Your task to perform on an android device: toggle javascript in the chrome app Image 0: 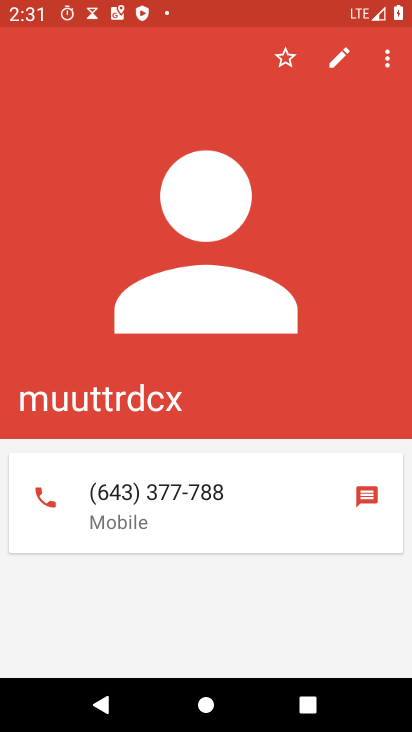
Step 0: press home button
Your task to perform on an android device: toggle javascript in the chrome app Image 1: 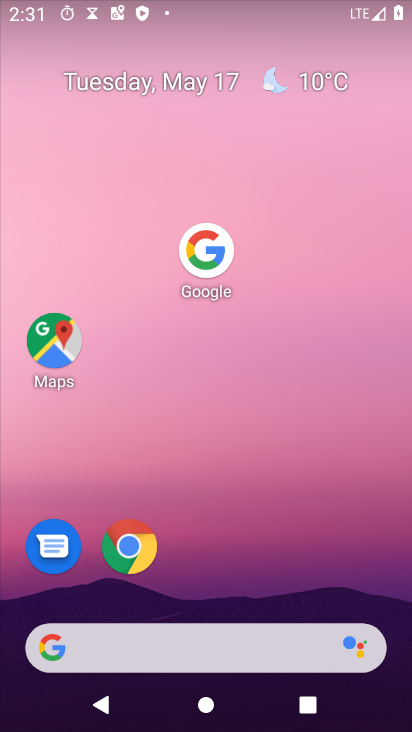
Step 1: click (133, 558)
Your task to perform on an android device: toggle javascript in the chrome app Image 2: 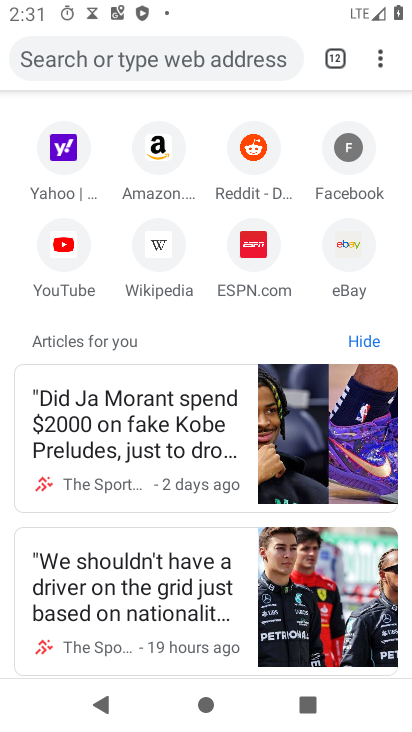
Step 2: drag from (381, 61) to (228, 479)
Your task to perform on an android device: toggle javascript in the chrome app Image 3: 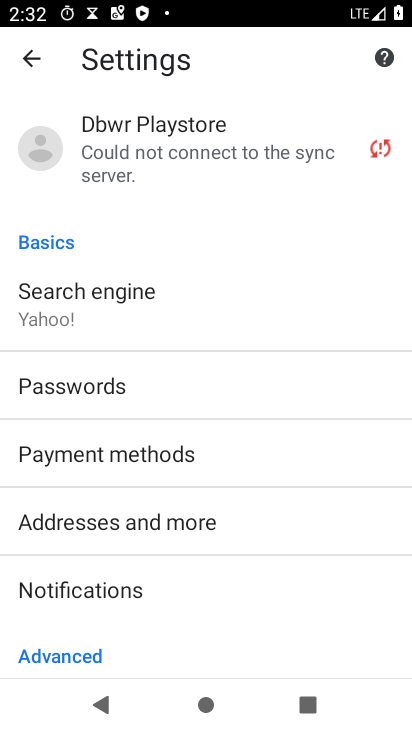
Step 3: drag from (156, 631) to (274, 287)
Your task to perform on an android device: toggle javascript in the chrome app Image 4: 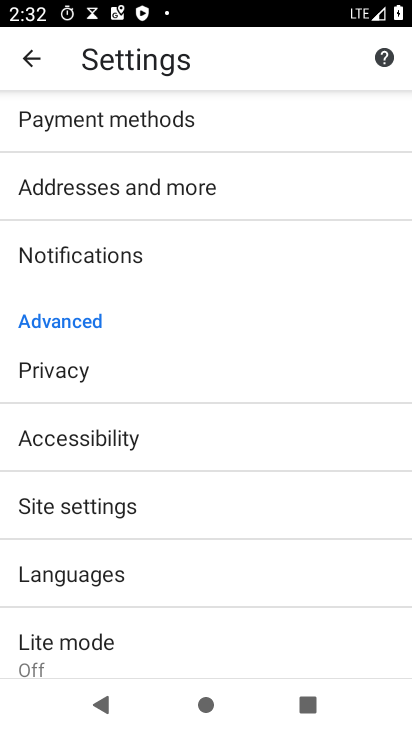
Step 4: click (127, 502)
Your task to perform on an android device: toggle javascript in the chrome app Image 5: 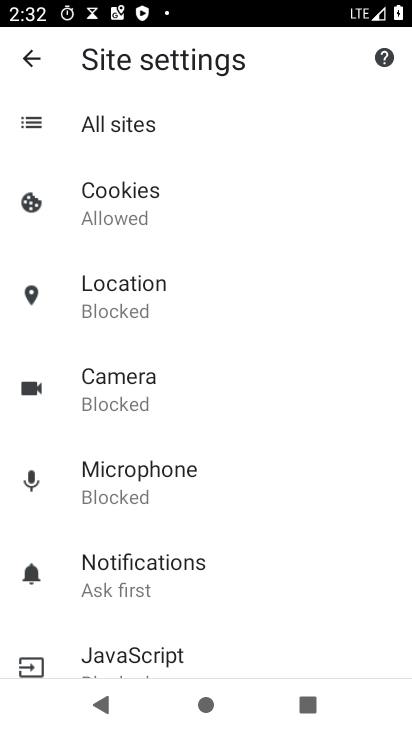
Step 5: drag from (257, 602) to (337, 321)
Your task to perform on an android device: toggle javascript in the chrome app Image 6: 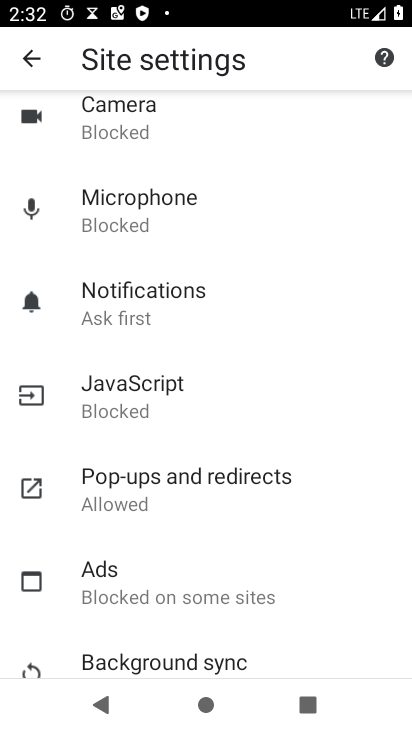
Step 6: click (135, 379)
Your task to perform on an android device: toggle javascript in the chrome app Image 7: 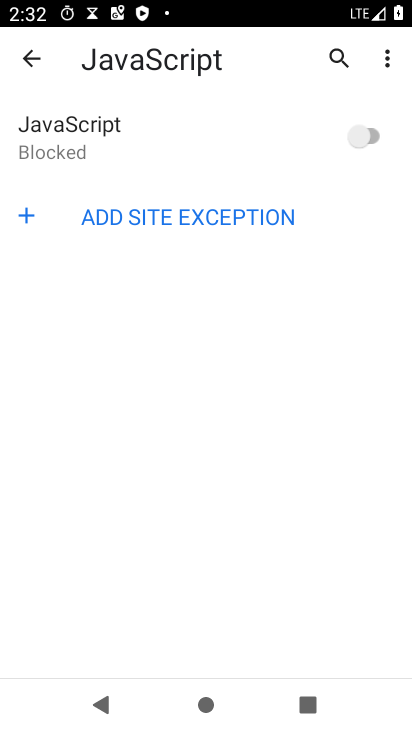
Step 7: click (373, 137)
Your task to perform on an android device: toggle javascript in the chrome app Image 8: 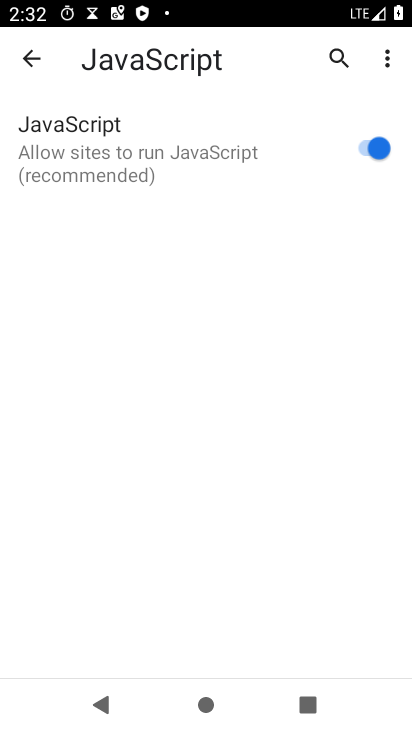
Step 8: task complete